Your task to perform on an android device: open a new tab in the chrome app Image 0: 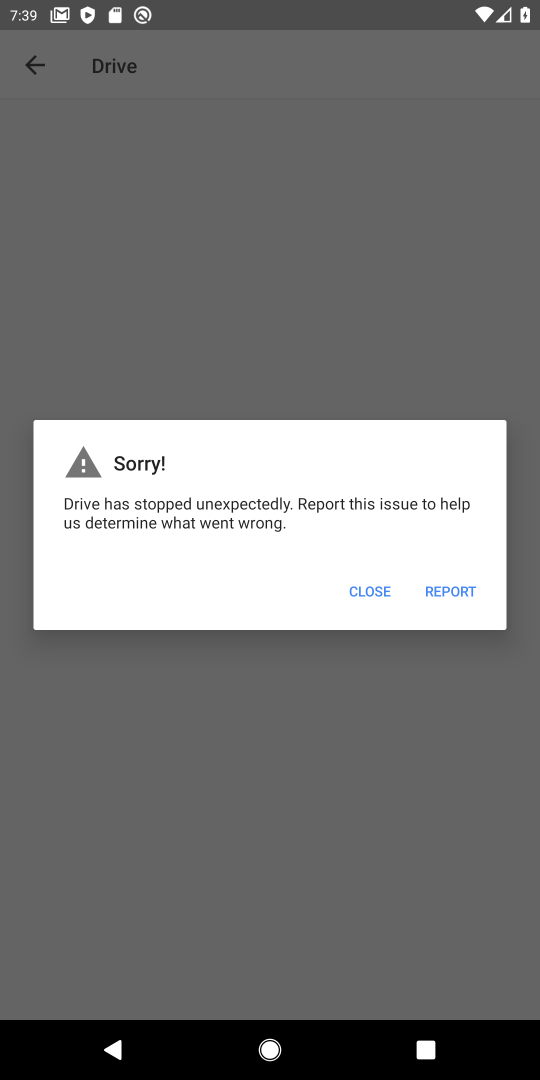
Step 0: drag from (513, 714) to (468, 586)
Your task to perform on an android device: open a new tab in the chrome app Image 1: 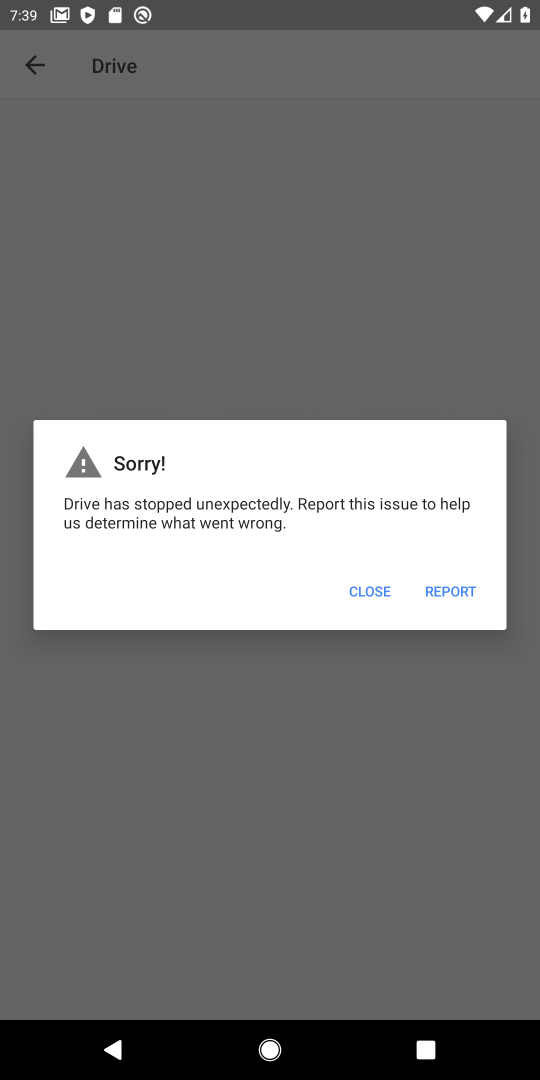
Step 1: press home button
Your task to perform on an android device: open a new tab in the chrome app Image 2: 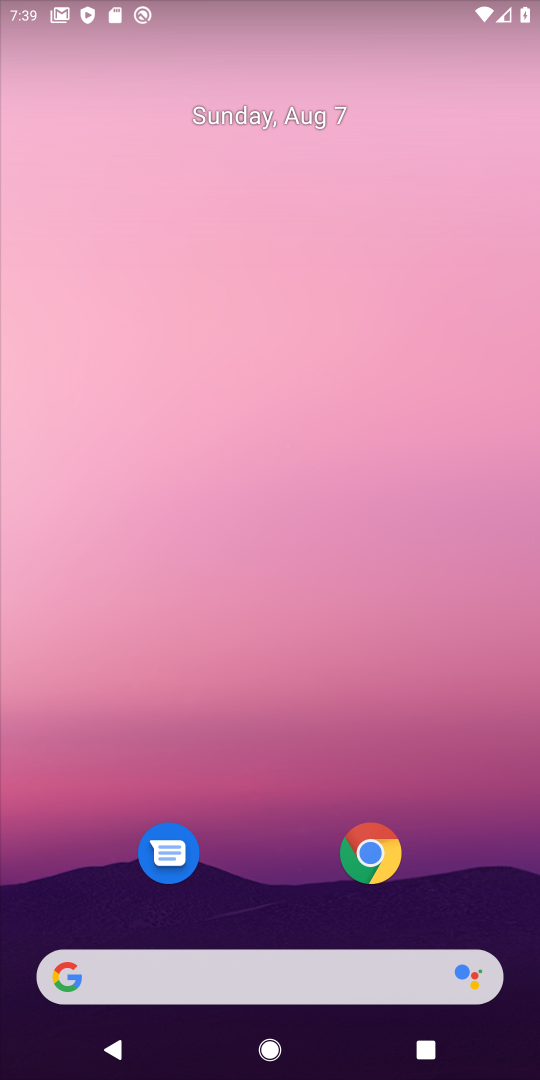
Step 2: click (364, 861)
Your task to perform on an android device: open a new tab in the chrome app Image 3: 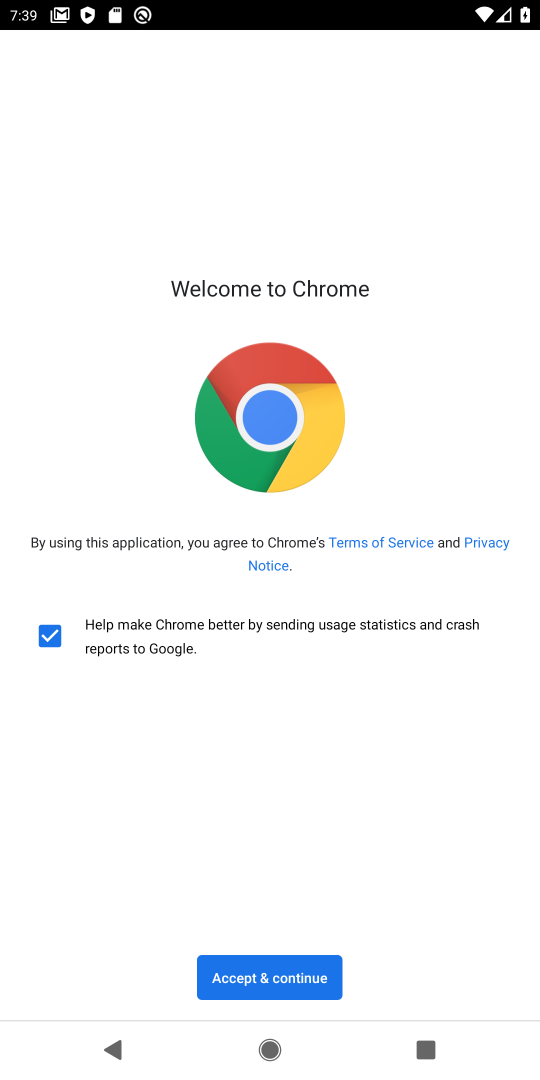
Step 3: click (312, 976)
Your task to perform on an android device: open a new tab in the chrome app Image 4: 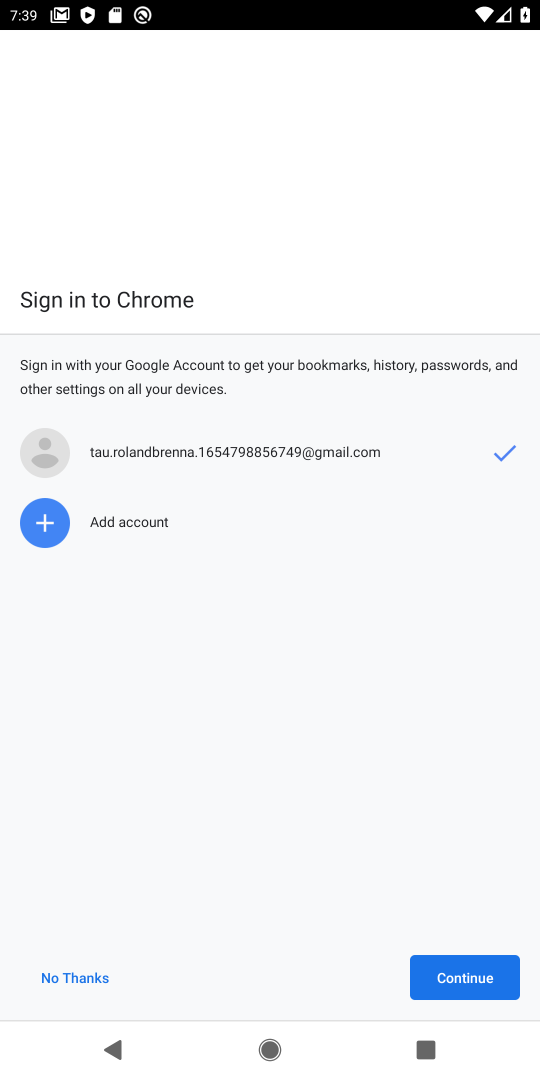
Step 4: click (465, 972)
Your task to perform on an android device: open a new tab in the chrome app Image 5: 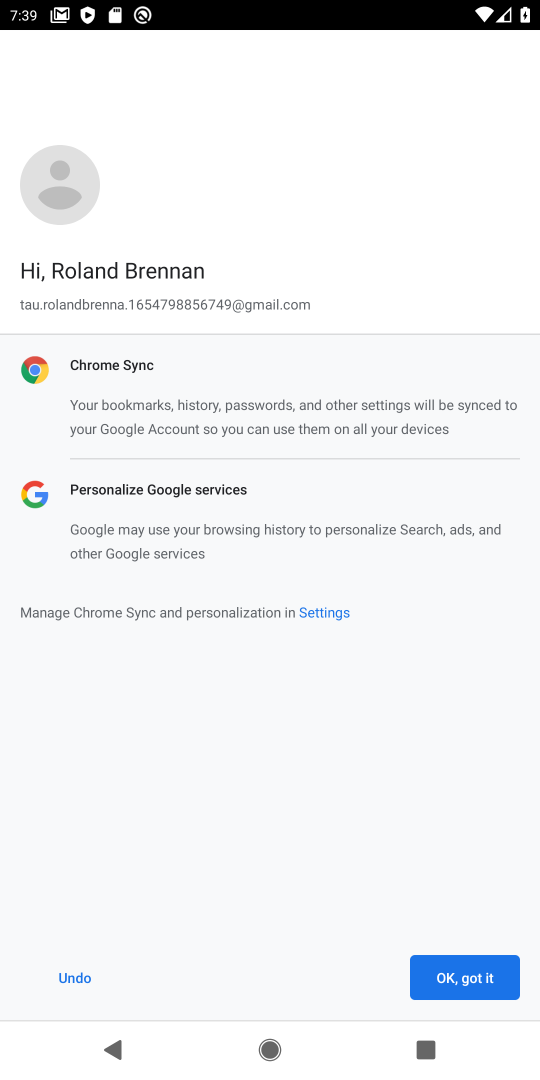
Step 5: click (463, 973)
Your task to perform on an android device: open a new tab in the chrome app Image 6: 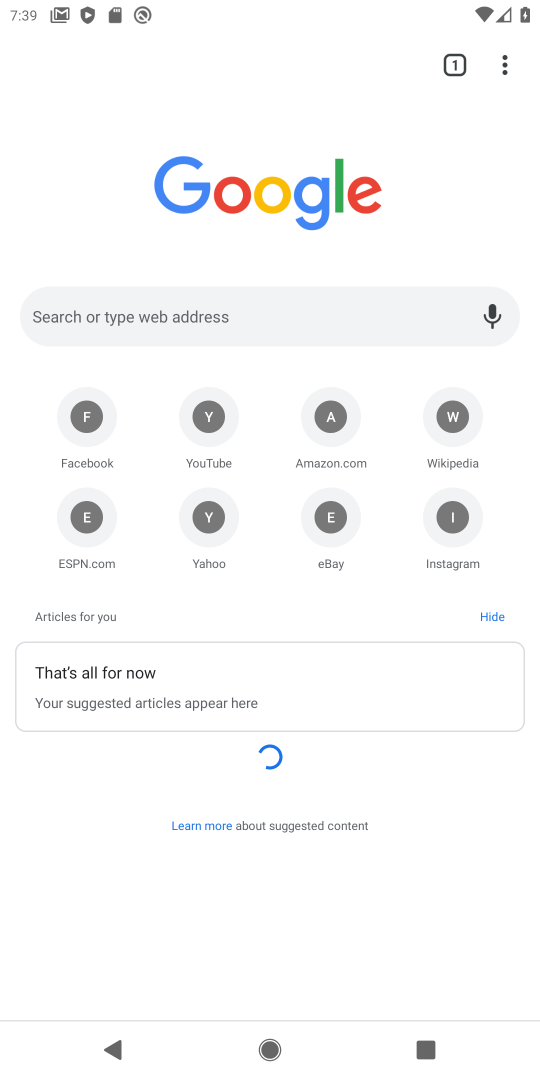
Step 6: click (485, 49)
Your task to perform on an android device: open a new tab in the chrome app Image 7: 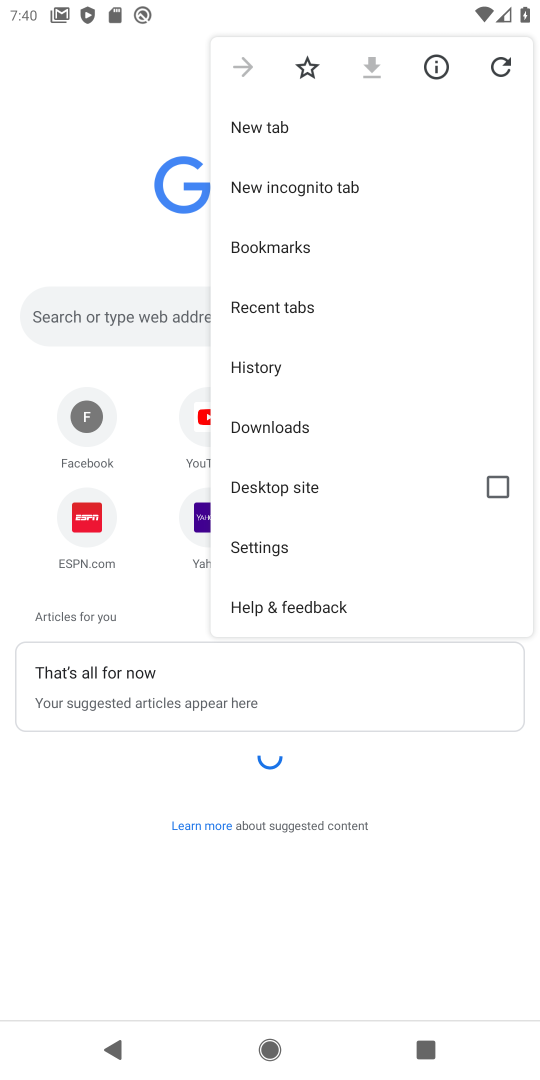
Step 7: click (261, 121)
Your task to perform on an android device: open a new tab in the chrome app Image 8: 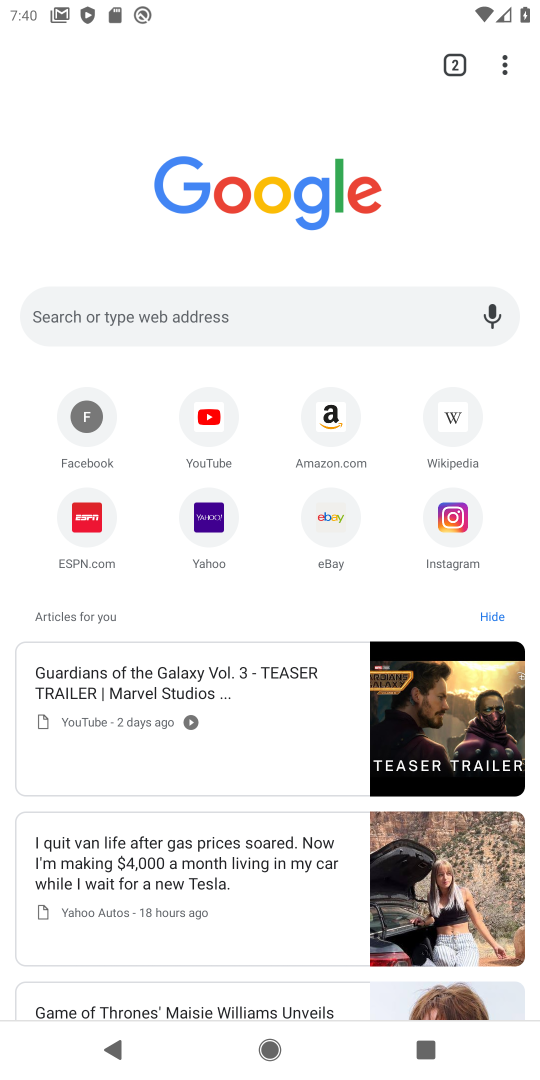
Step 8: task complete